Your task to perform on an android device: toggle improve location accuracy Image 0: 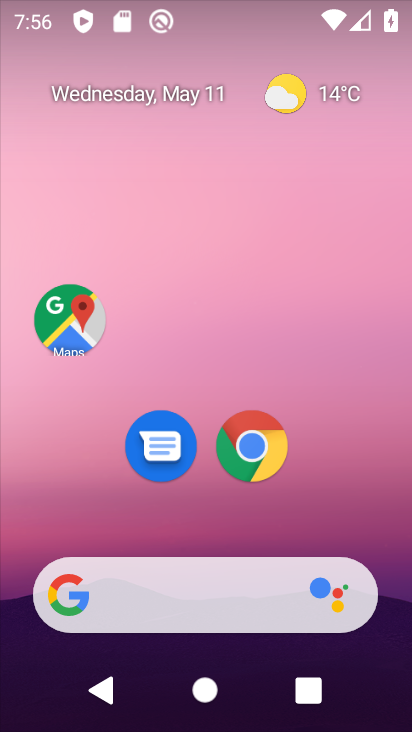
Step 0: drag from (307, 516) to (306, 118)
Your task to perform on an android device: toggle improve location accuracy Image 1: 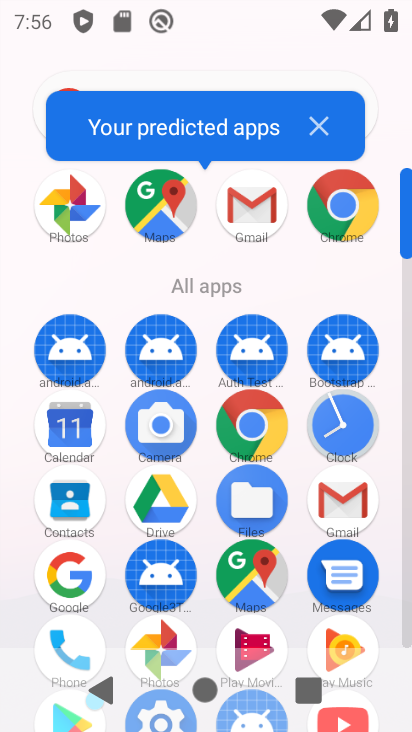
Step 1: drag from (209, 624) to (222, 327)
Your task to perform on an android device: toggle improve location accuracy Image 2: 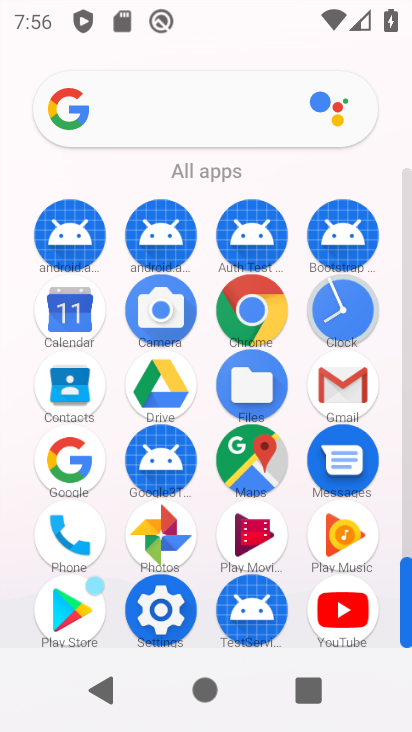
Step 2: click (162, 613)
Your task to perform on an android device: toggle improve location accuracy Image 3: 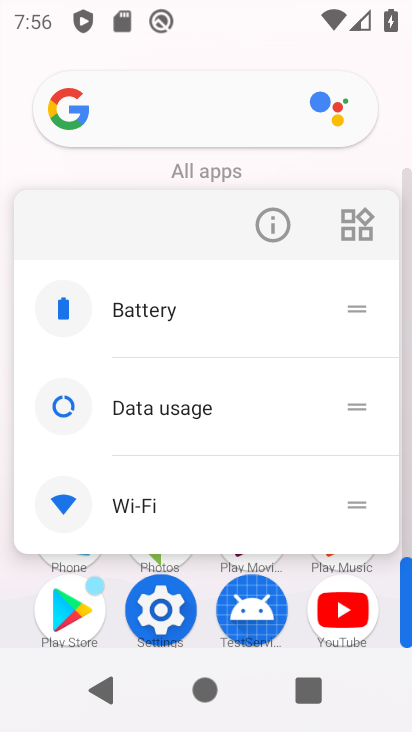
Step 3: click (162, 613)
Your task to perform on an android device: toggle improve location accuracy Image 4: 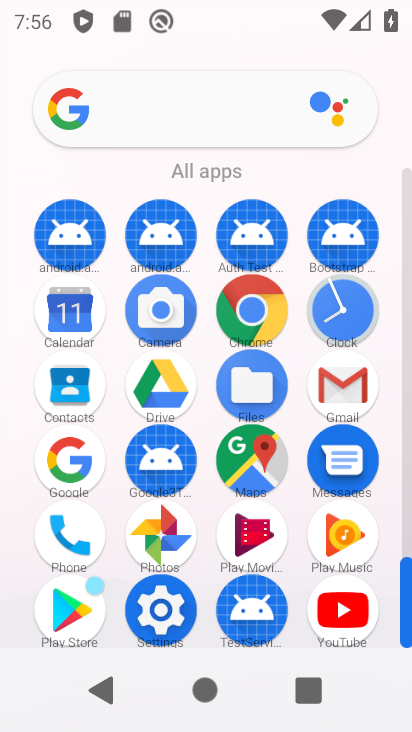
Step 4: click (165, 620)
Your task to perform on an android device: toggle improve location accuracy Image 5: 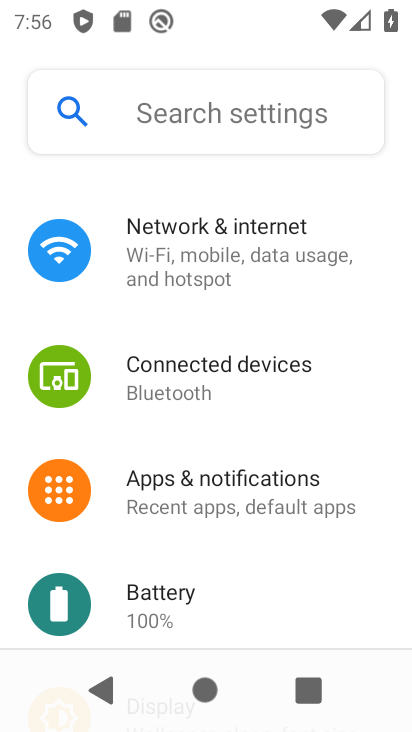
Step 5: click (165, 617)
Your task to perform on an android device: toggle improve location accuracy Image 6: 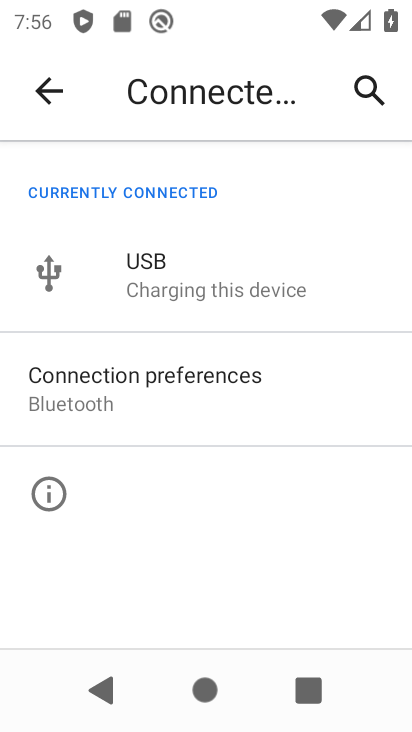
Step 6: press back button
Your task to perform on an android device: toggle improve location accuracy Image 7: 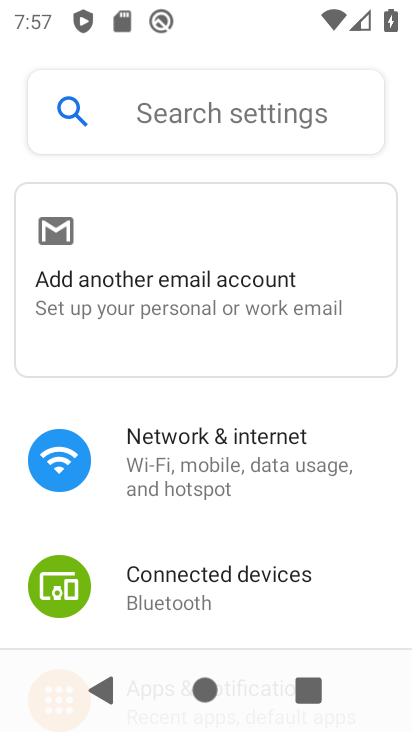
Step 7: drag from (254, 575) to (251, 298)
Your task to perform on an android device: toggle improve location accuracy Image 8: 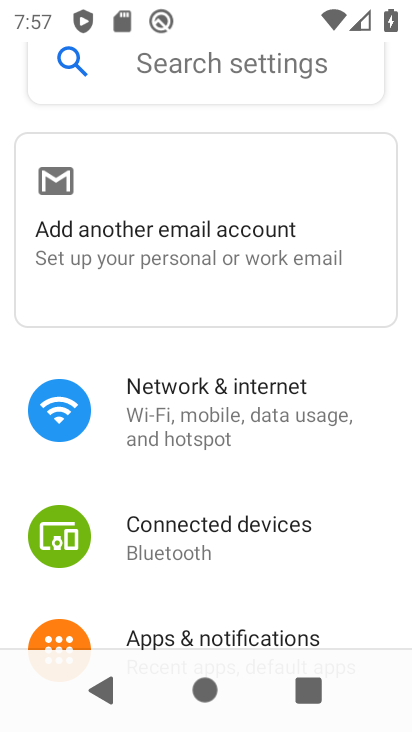
Step 8: drag from (241, 583) to (233, 334)
Your task to perform on an android device: toggle improve location accuracy Image 9: 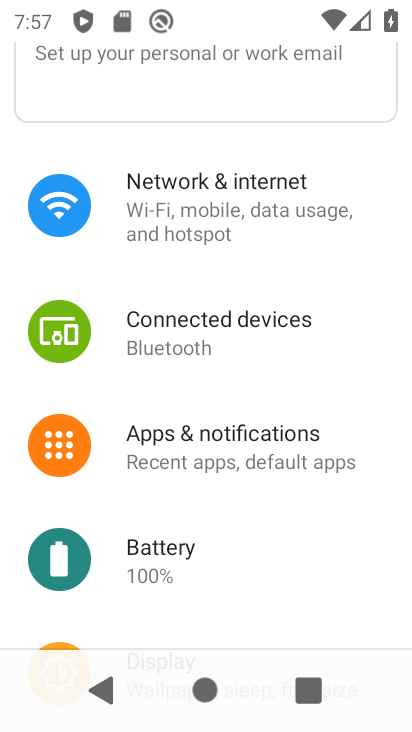
Step 9: click (257, 320)
Your task to perform on an android device: toggle improve location accuracy Image 10: 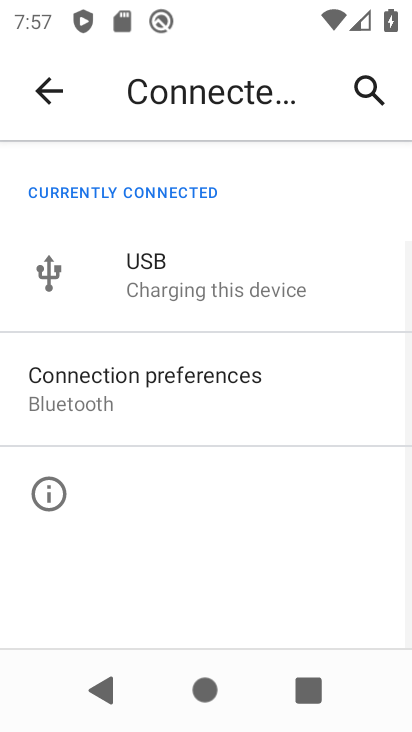
Step 10: click (46, 95)
Your task to perform on an android device: toggle improve location accuracy Image 11: 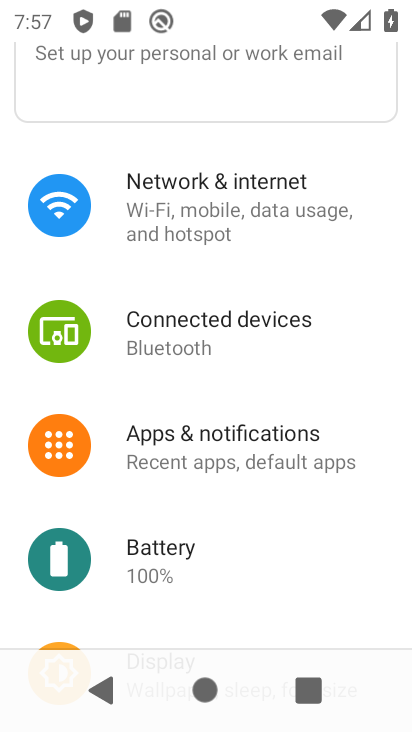
Step 11: drag from (200, 569) to (211, 304)
Your task to perform on an android device: toggle improve location accuracy Image 12: 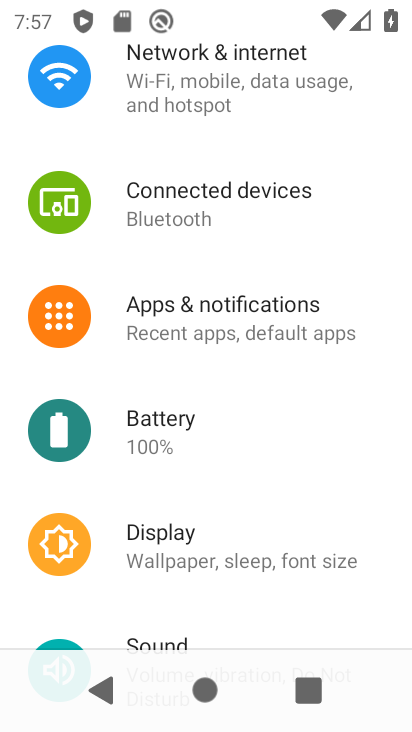
Step 12: drag from (174, 599) to (231, 263)
Your task to perform on an android device: toggle improve location accuracy Image 13: 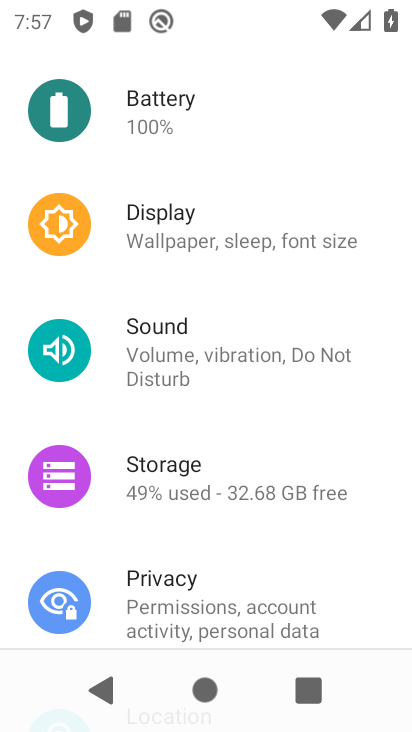
Step 13: drag from (188, 546) to (237, 319)
Your task to perform on an android device: toggle improve location accuracy Image 14: 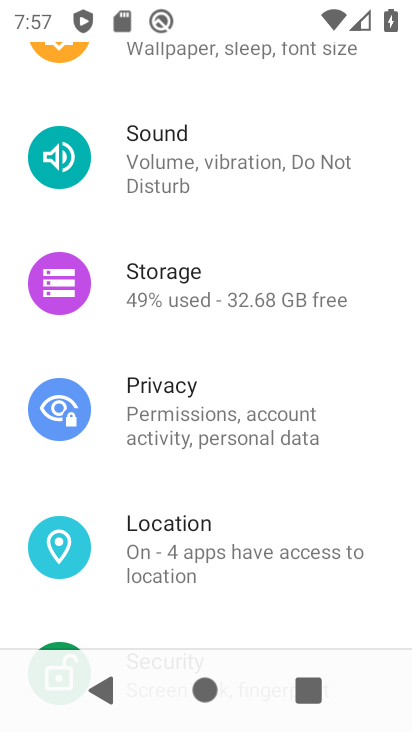
Step 14: click (174, 554)
Your task to perform on an android device: toggle improve location accuracy Image 15: 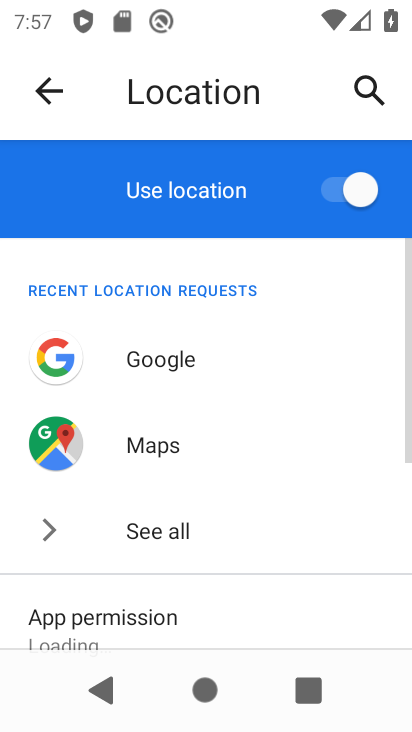
Step 15: drag from (170, 603) to (241, 229)
Your task to perform on an android device: toggle improve location accuracy Image 16: 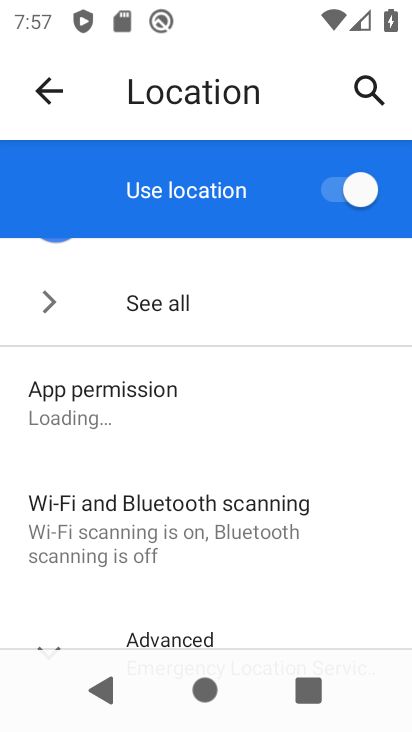
Step 16: drag from (210, 605) to (264, 335)
Your task to perform on an android device: toggle improve location accuracy Image 17: 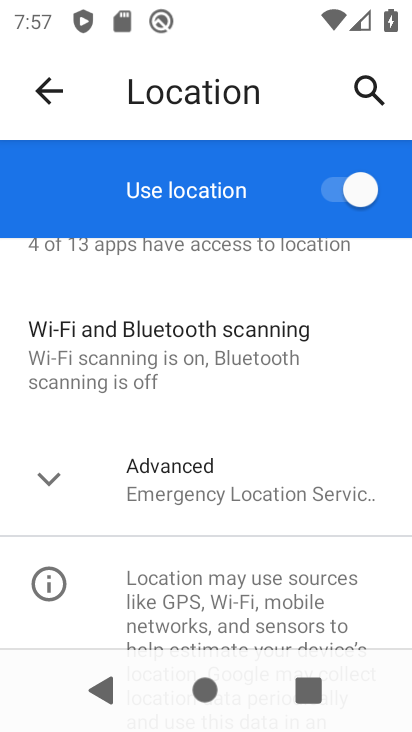
Step 17: click (163, 487)
Your task to perform on an android device: toggle improve location accuracy Image 18: 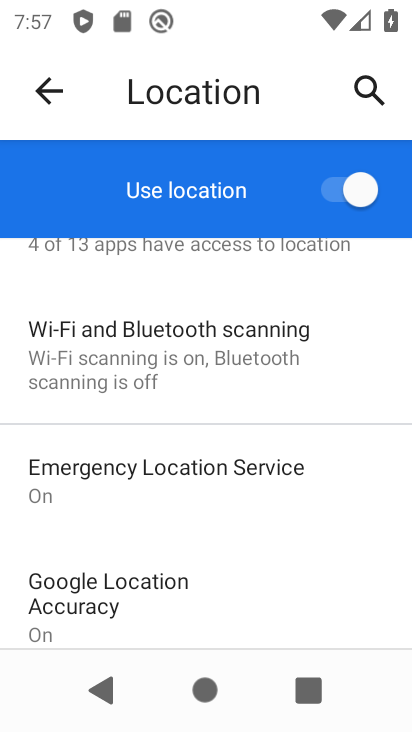
Step 18: drag from (192, 605) to (215, 373)
Your task to perform on an android device: toggle improve location accuracy Image 19: 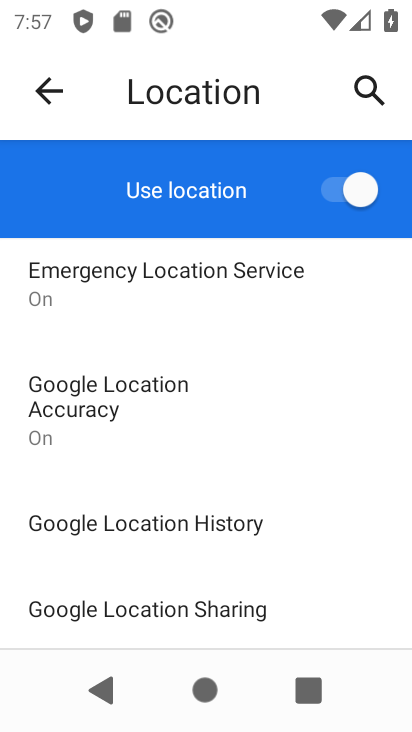
Step 19: click (79, 388)
Your task to perform on an android device: toggle improve location accuracy Image 20: 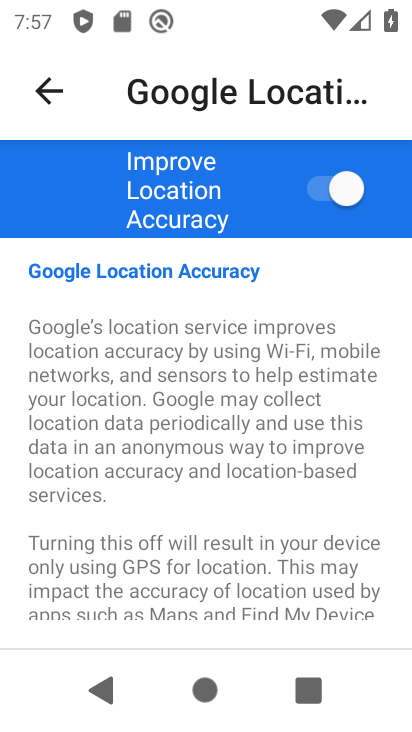
Step 20: click (320, 191)
Your task to perform on an android device: toggle improve location accuracy Image 21: 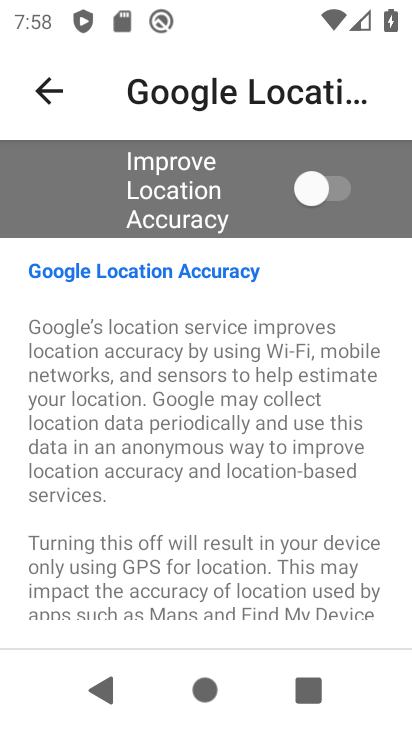
Step 21: task complete